Your task to perform on an android device: turn off location Image 0: 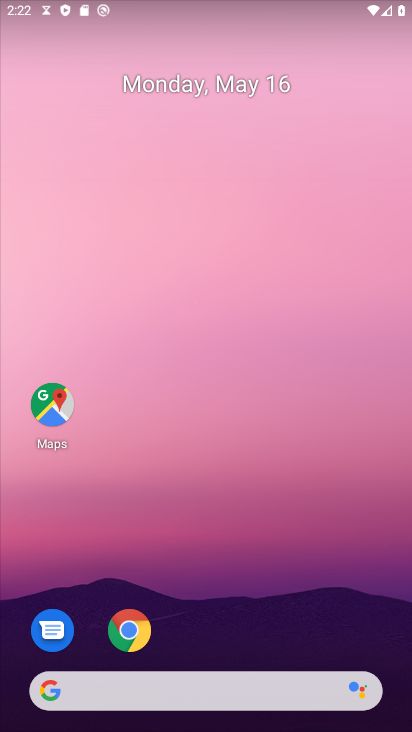
Step 0: drag from (228, 657) to (214, 45)
Your task to perform on an android device: turn off location Image 1: 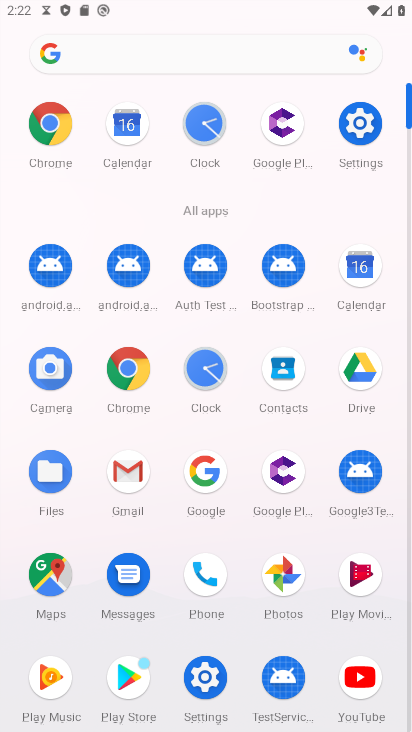
Step 1: click (358, 121)
Your task to perform on an android device: turn off location Image 2: 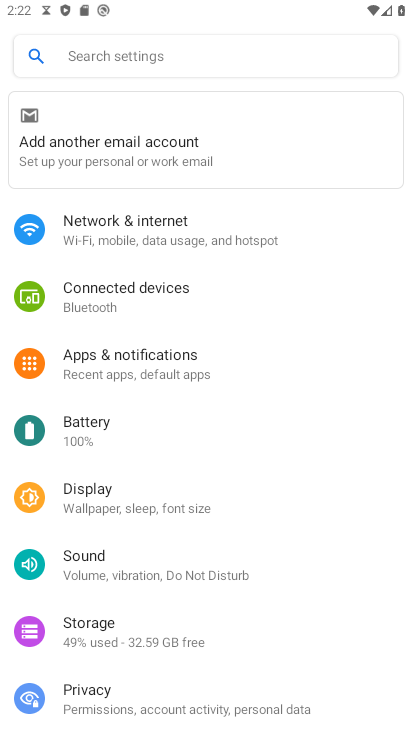
Step 2: drag from (141, 673) to (213, 270)
Your task to perform on an android device: turn off location Image 3: 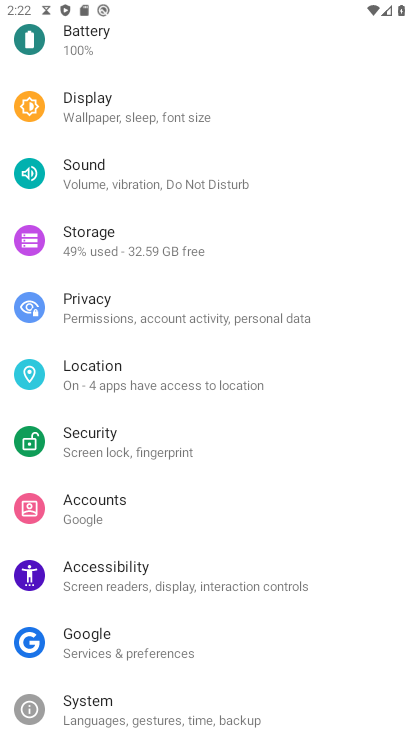
Step 3: click (130, 371)
Your task to perform on an android device: turn off location Image 4: 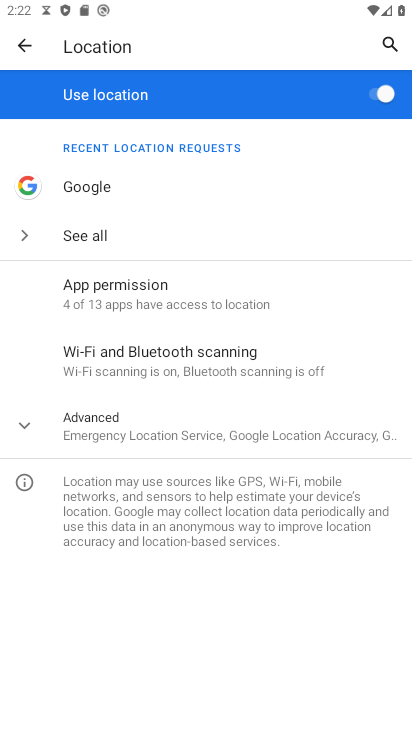
Step 4: click (370, 79)
Your task to perform on an android device: turn off location Image 5: 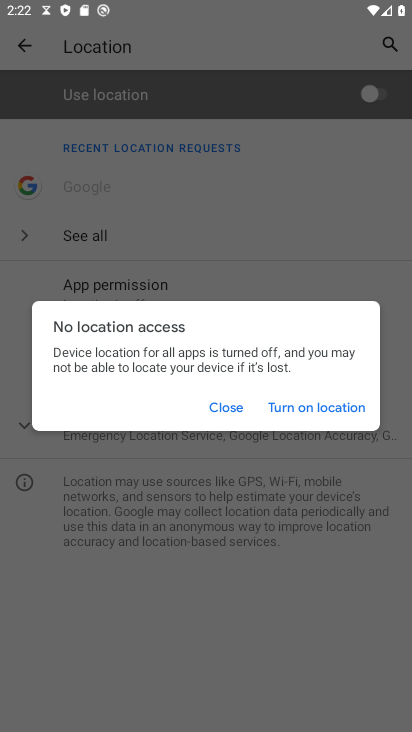
Step 5: task complete